Your task to perform on an android device: remove spam from my inbox in the gmail app Image 0: 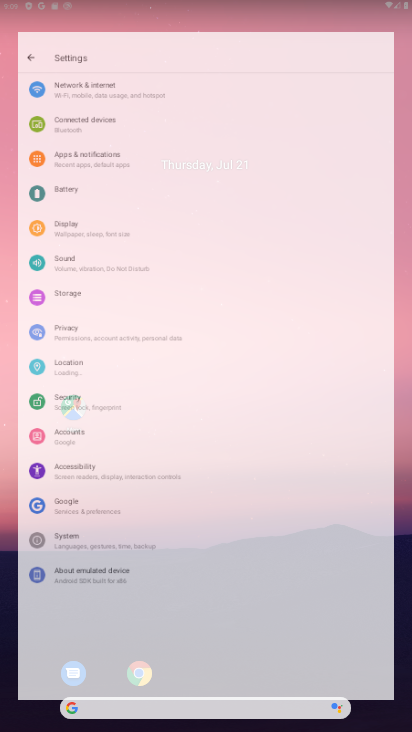
Step 0: press home button
Your task to perform on an android device: remove spam from my inbox in the gmail app Image 1: 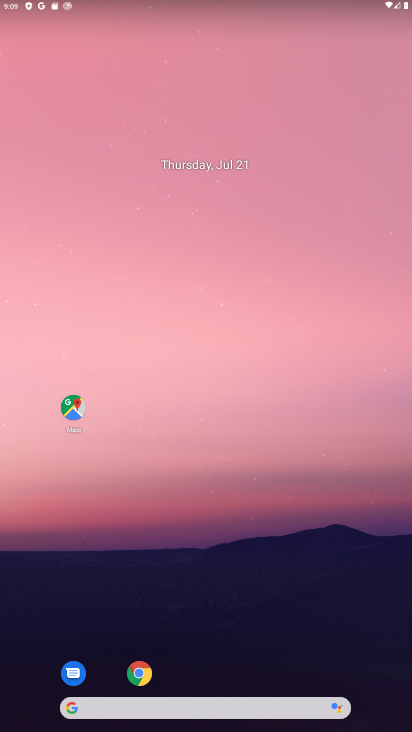
Step 1: drag from (219, 661) to (260, 57)
Your task to perform on an android device: remove spam from my inbox in the gmail app Image 2: 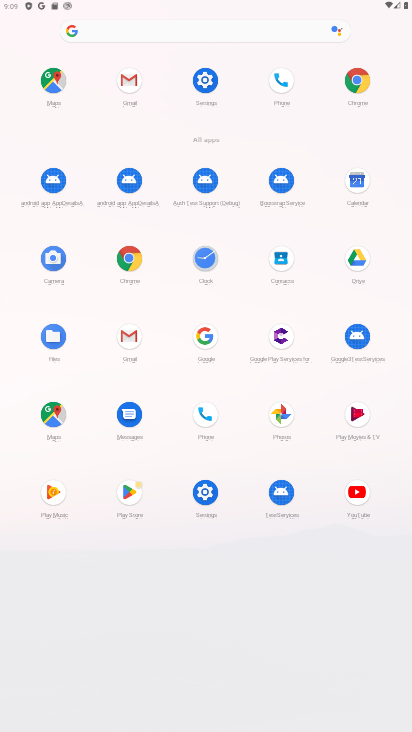
Step 2: click (129, 332)
Your task to perform on an android device: remove spam from my inbox in the gmail app Image 3: 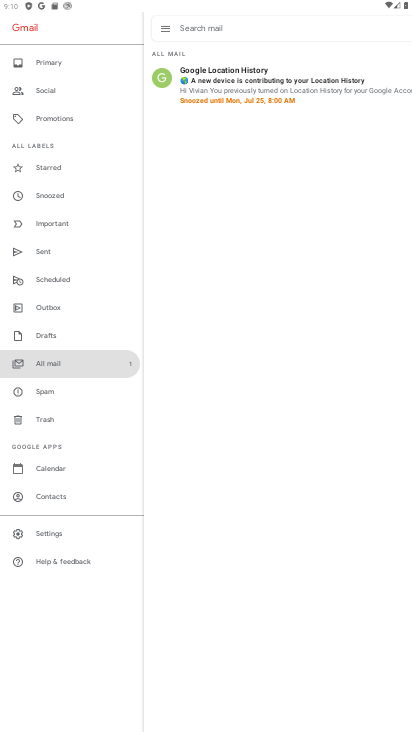
Step 3: click (51, 396)
Your task to perform on an android device: remove spam from my inbox in the gmail app Image 4: 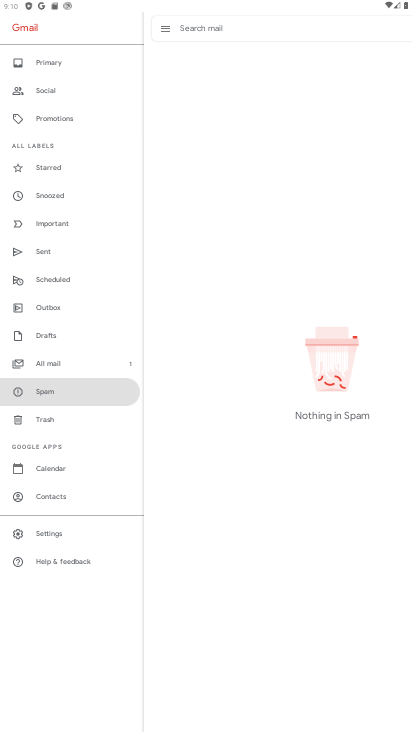
Step 4: task complete